Your task to perform on an android device: all mails in gmail Image 0: 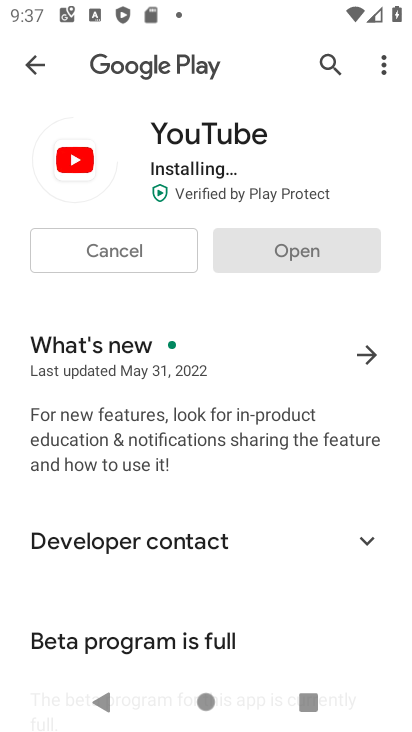
Step 0: press home button
Your task to perform on an android device: all mails in gmail Image 1: 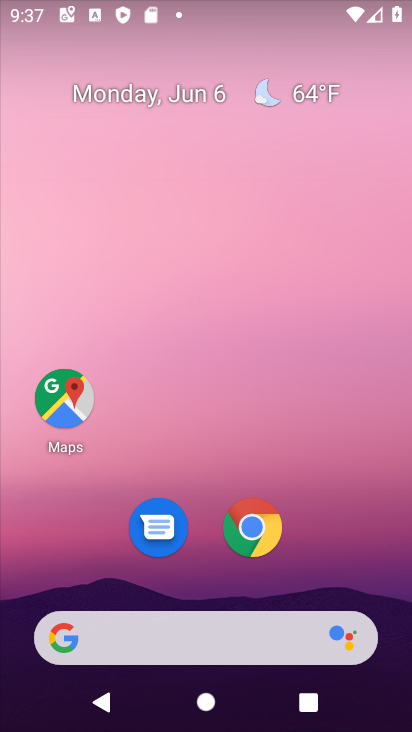
Step 1: click (197, 511)
Your task to perform on an android device: all mails in gmail Image 2: 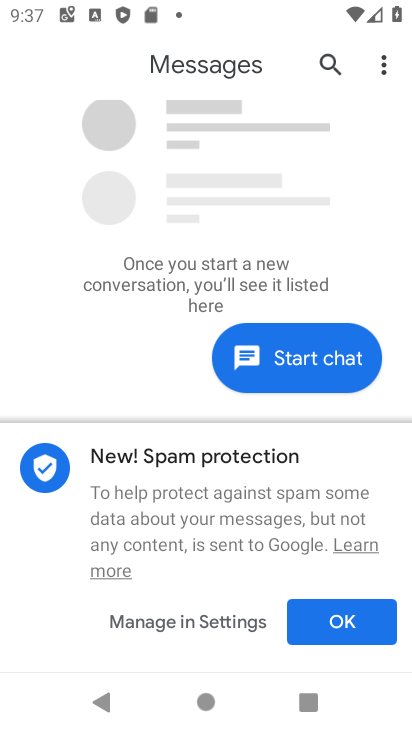
Step 2: press home button
Your task to perform on an android device: all mails in gmail Image 3: 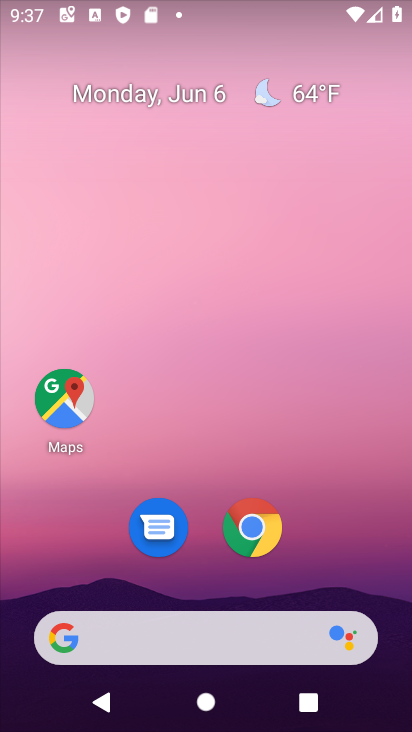
Step 3: drag from (209, 518) to (288, 265)
Your task to perform on an android device: all mails in gmail Image 4: 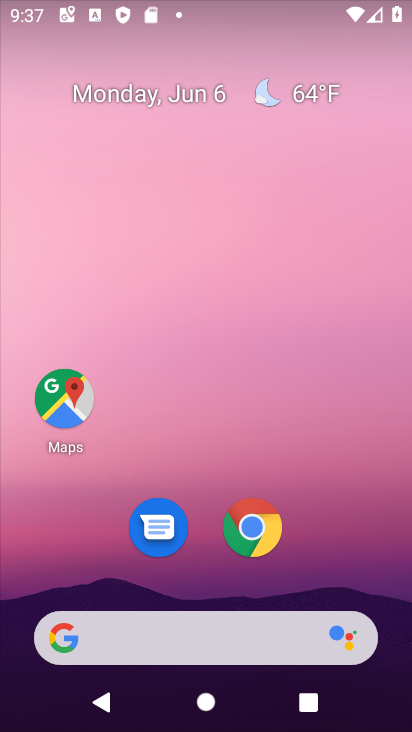
Step 4: drag from (254, 626) to (295, 340)
Your task to perform on an android device: all mails in gmail Image 5: 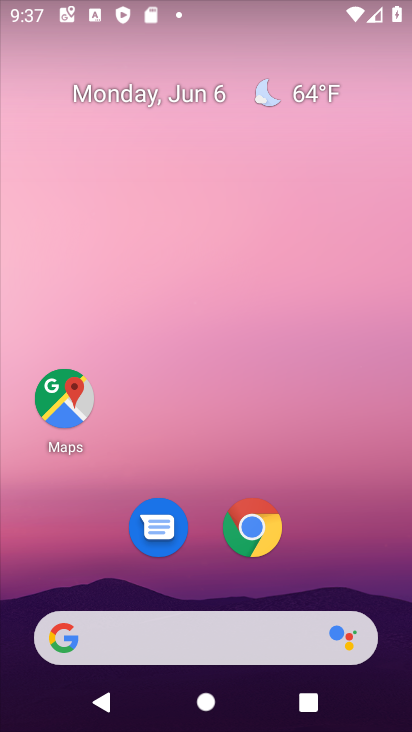
Step 5: drag from (200, 549) to (257, 267)
Your task to perform on an android device: all mails in gmail Image 6: 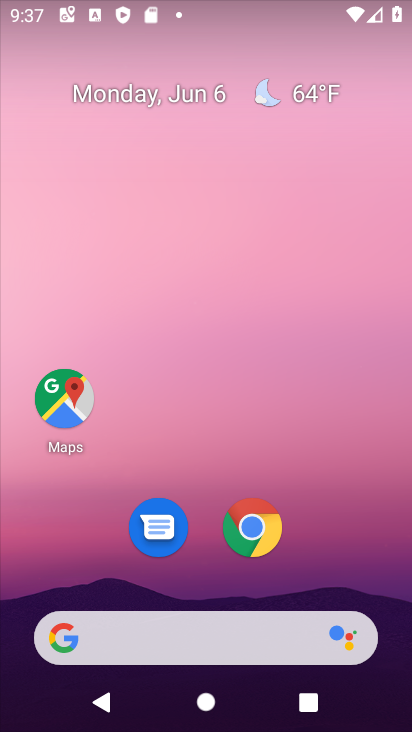
Step 6: drag from (224, 602) to (283, 160)
Your task to perform on an android device: all mails in gmail Image 7: 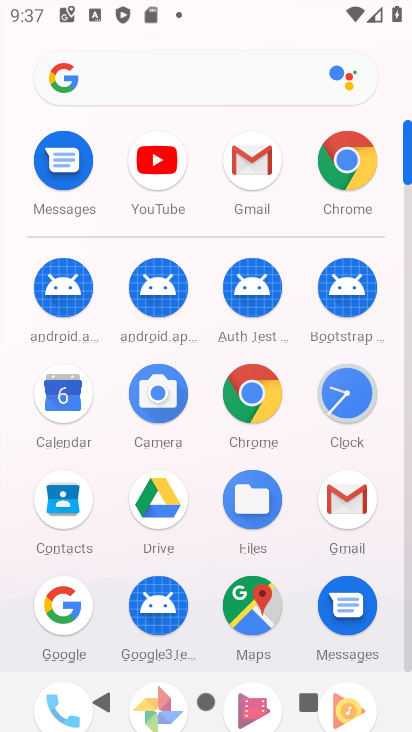
Step 7: click (344, 498)
Your task to perform on an android device: all mails in gmail Image 8: 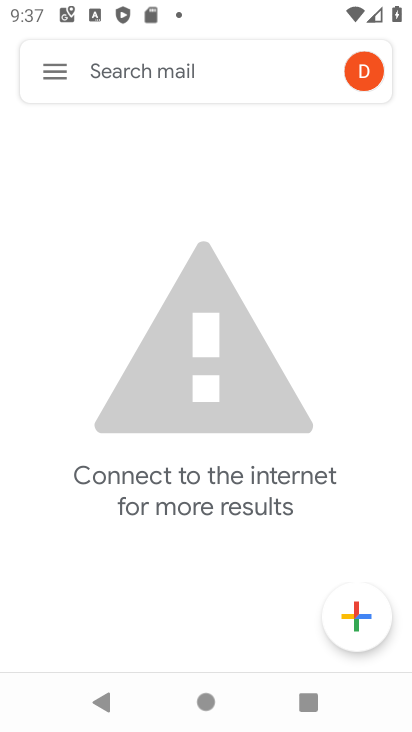
Step 8: click (60, 79)
Your task to perform on an android device: all mails in gmail Image 9: 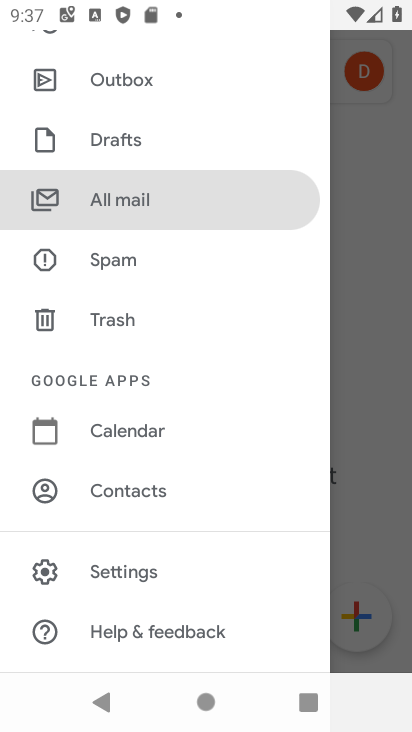
Step 9: click (137, 206)
Your task to perform on an android device: all mails in gmail Image 10: 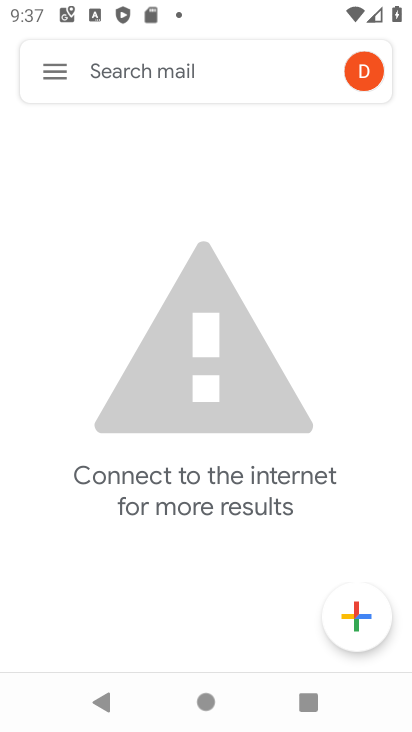
Step 10: task complete